Your task to perform on an android device: turn off wifi Image 0: 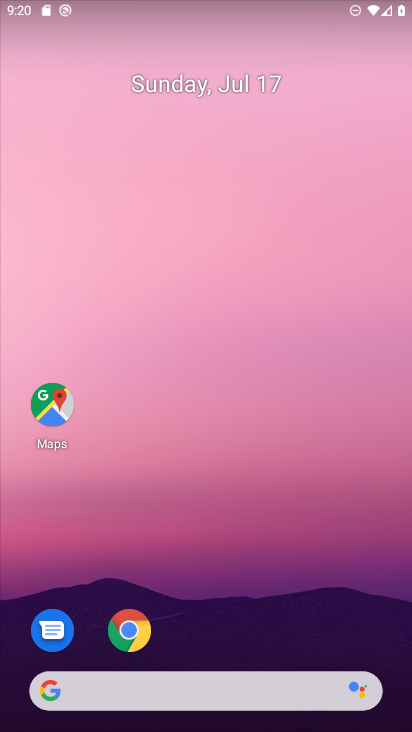
Step 0: drag from (152, 4) to (204, 545)
Your task to perform on an android device: turn off wifi Image 1: 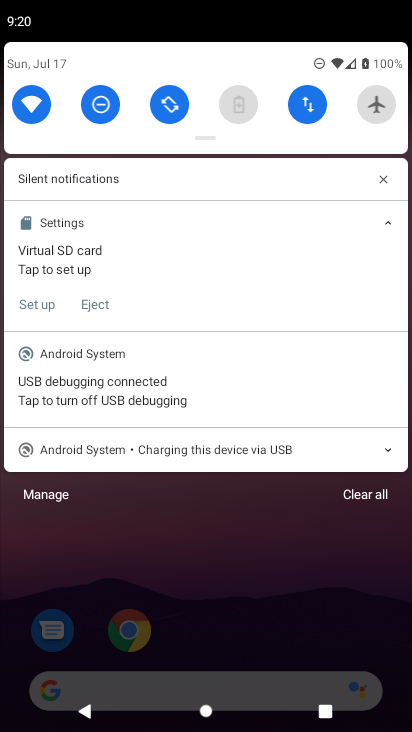
Step 1: click (28, 110)
Your task to perform on an android device: turn off wifi Image 2: 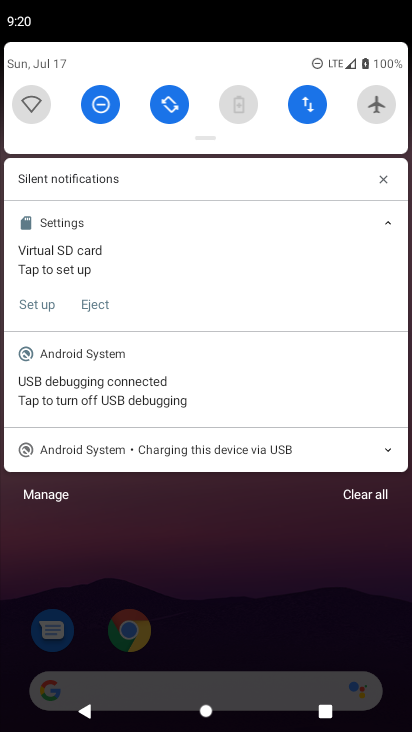
Step 2: task complete